Your task to perform on an android device: delete a single message in the gmail app Image 0: 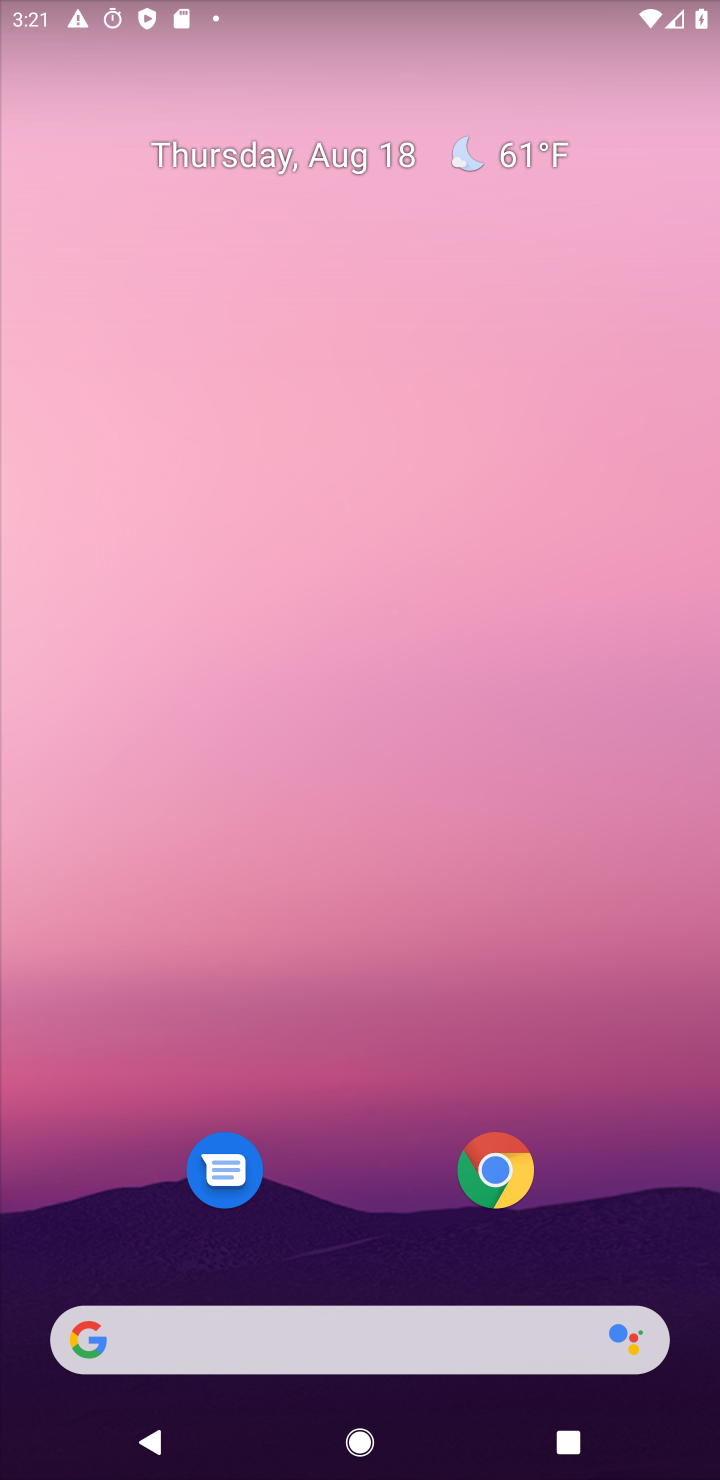
Step 0: press home button
Your task to perform on an android device: delete a single message in the gmail app Image 1: 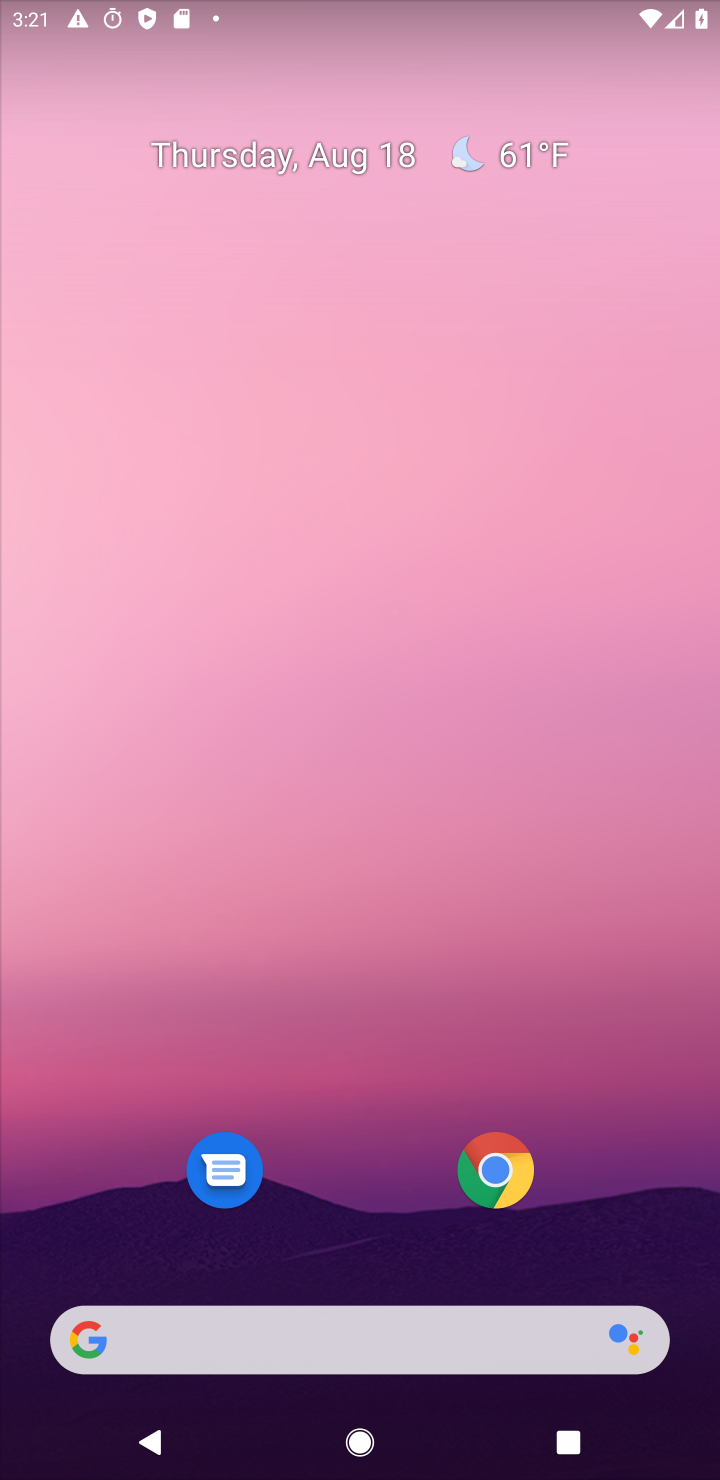
Step 1: drag from (322, 837) to (340, 176)
Your task to perform on an android device: delete a single message in the gmail app Image 2: 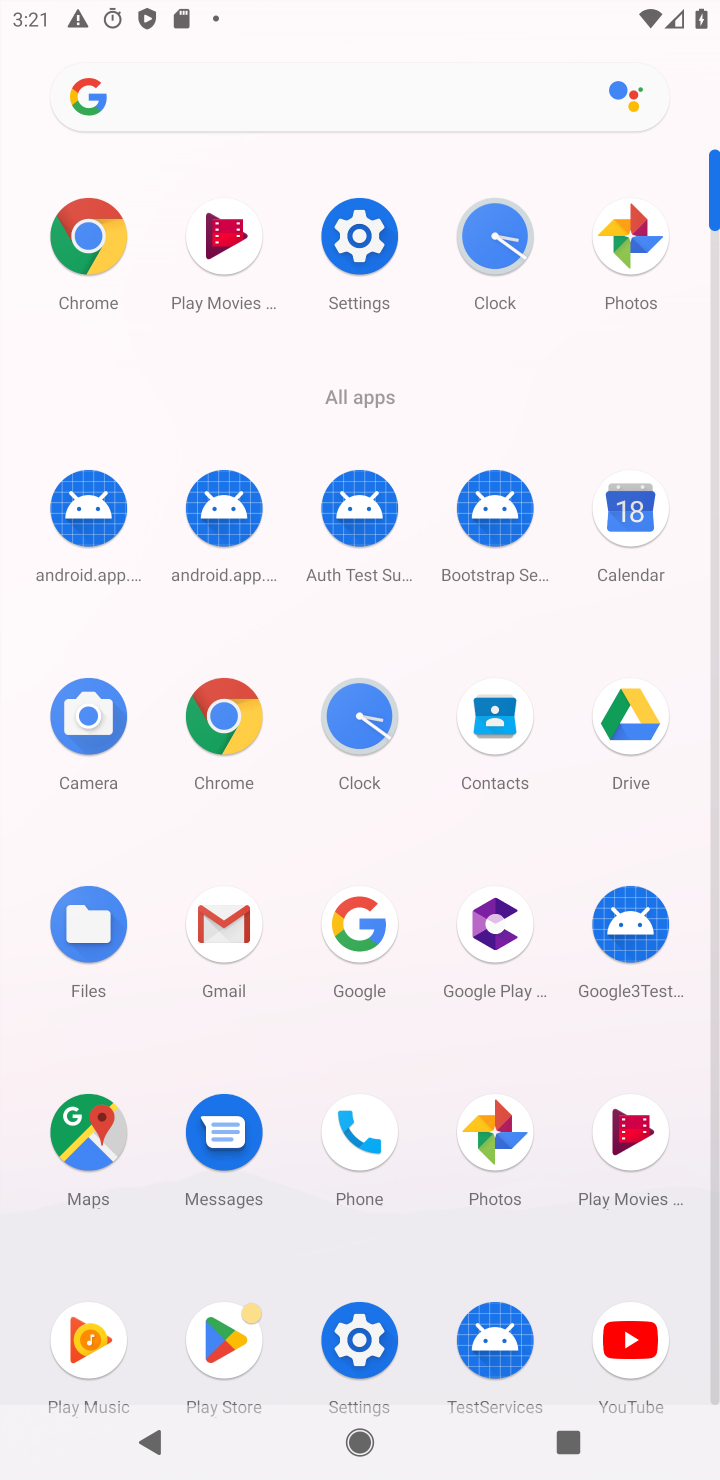
Step 2: click (256, 932)
Your task to perform on an android device: delete a single message in the gmail app Image 3: 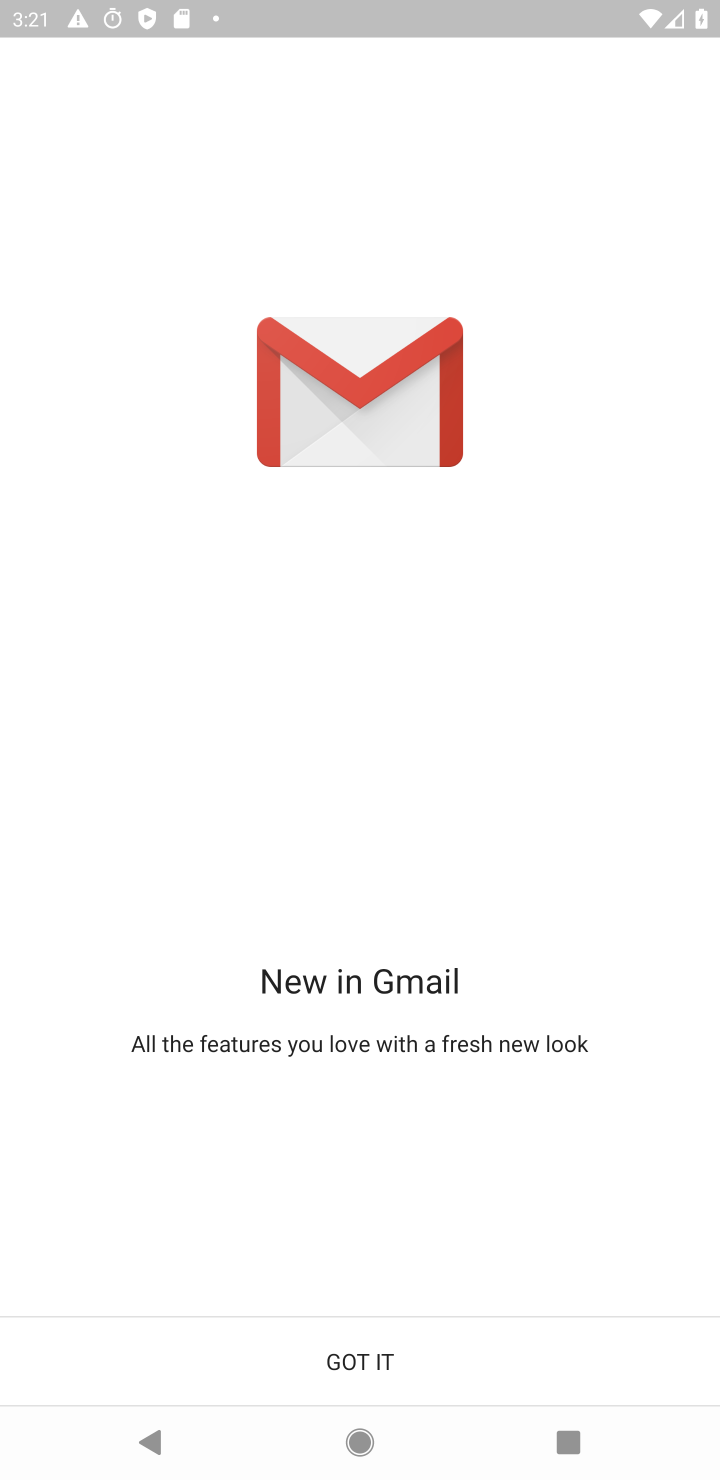
Step 3: click (354, 1362)
Your task to perform on an android device: delete a single message in the gmail app Image 4: 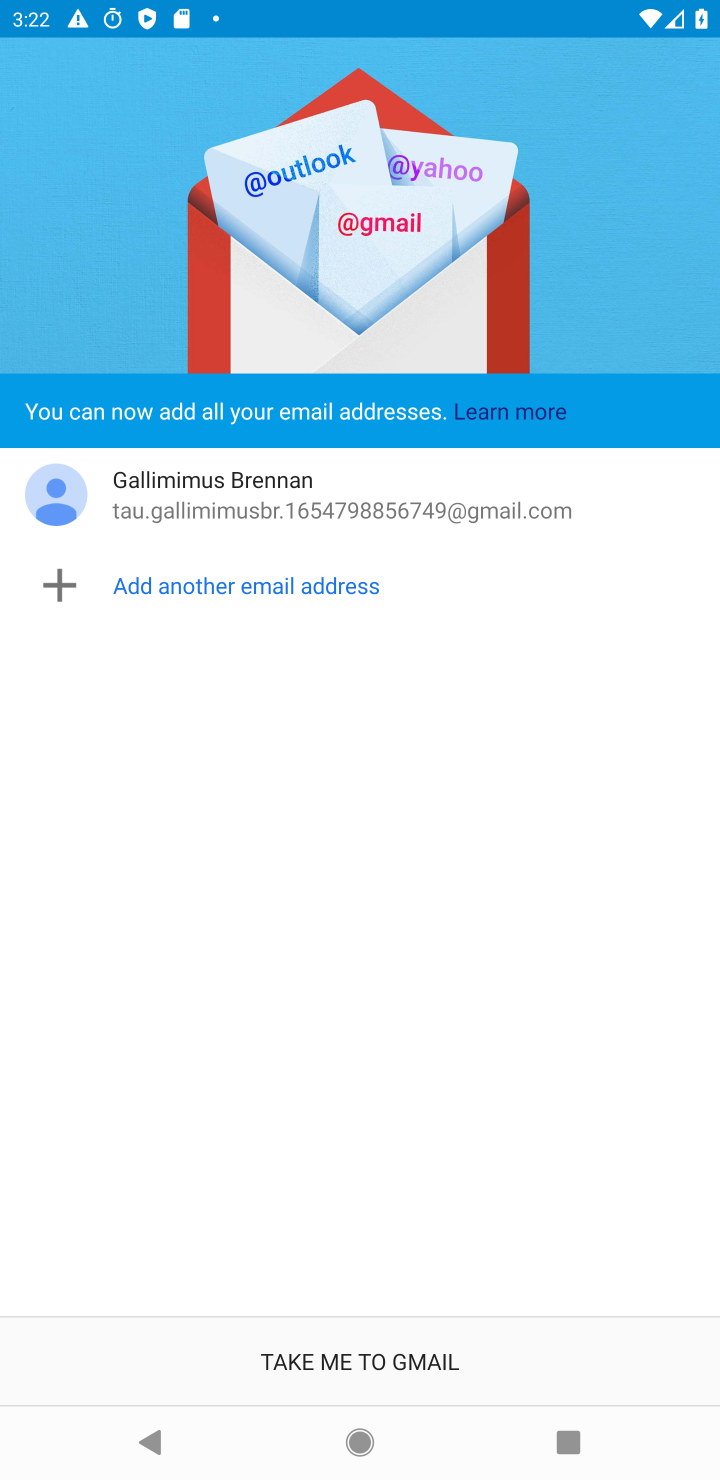
Step 4: click (354, 1362)
Your task to perform on an android device: delete a single message in the gmail app Image 5: 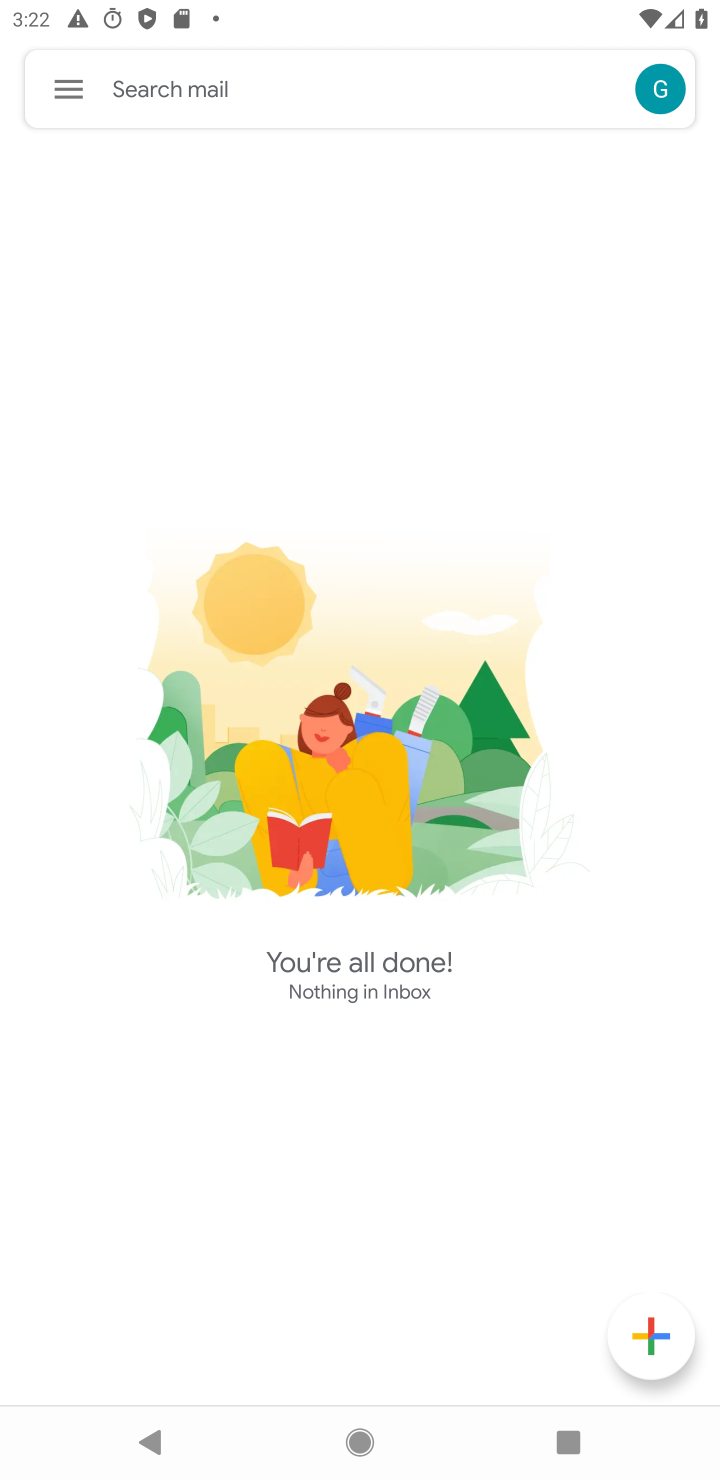
Step 5: task complete